Your task to perform on an android device: toggle priority inbox in the gmail app Image 0: 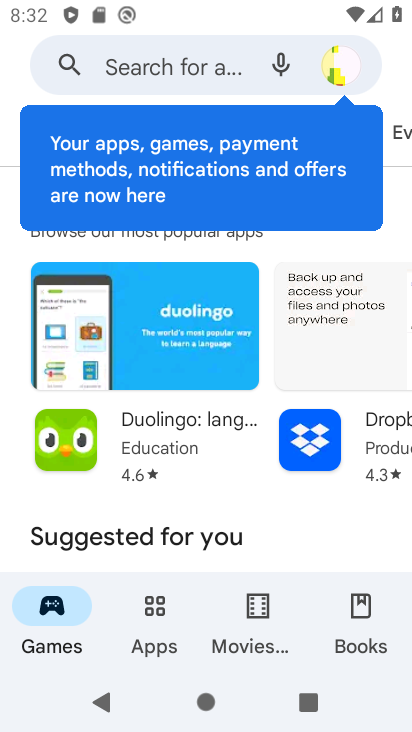
Step 0: press home button
Your task to perform on an android device: toggle priority inbox in the gmail app Image 1: 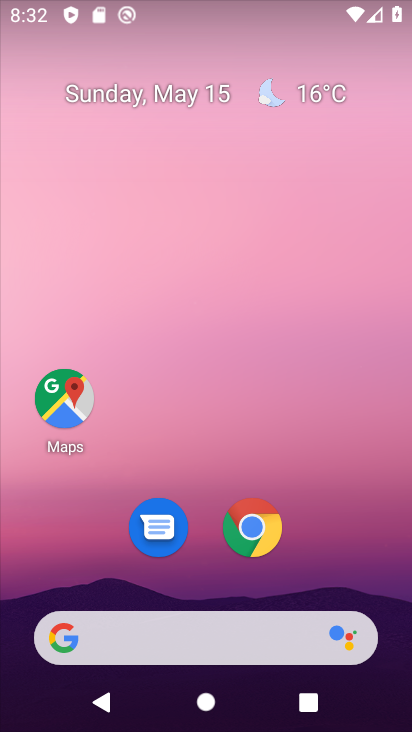
Step 1: drag from (361, 584) to (308, 9)
Your task to perform on an android device: toggle priority inbox in the gmail app Image 2: 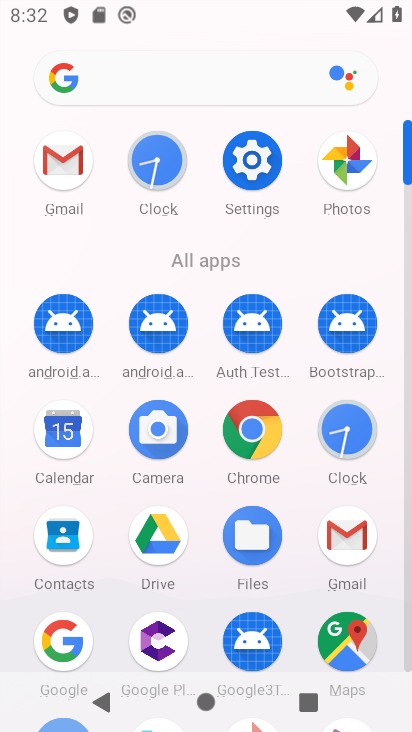
Step 2: click (65, 167)
Your task to perform on an android device: toggle priority inbox in the gmail app Image 3: 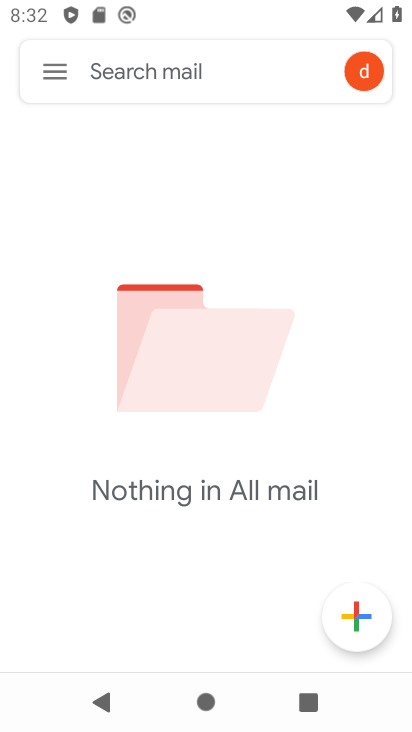
Step 3: click (47, 66)
Your task to perform on an android device: toggle priority inbox in the gmail app Image 4: 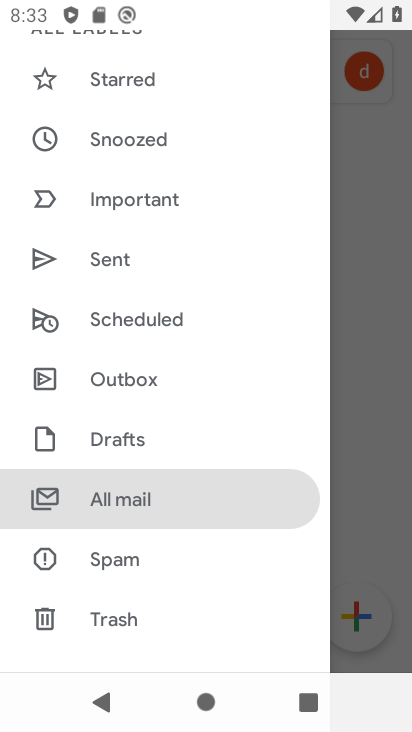
Step 4: drag from (243, 616) to (229, 85)
Your task to perform on an android device: toggle priority inbox in the gmail app Image 5: 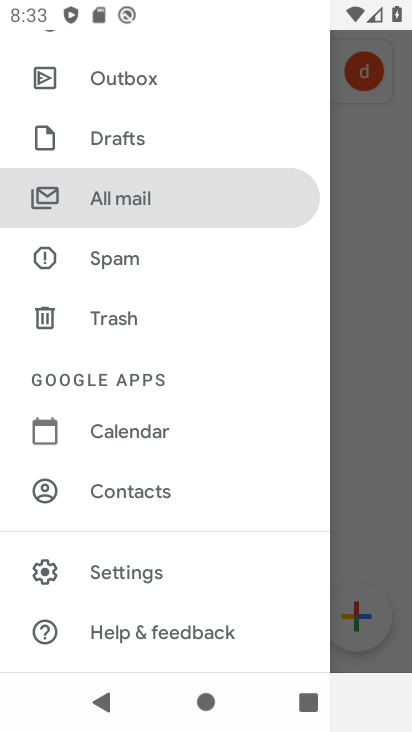
Step 5: click (103, 573)
Your task to perform on an android device: toggle priority inbox in the gmail app Image 6: 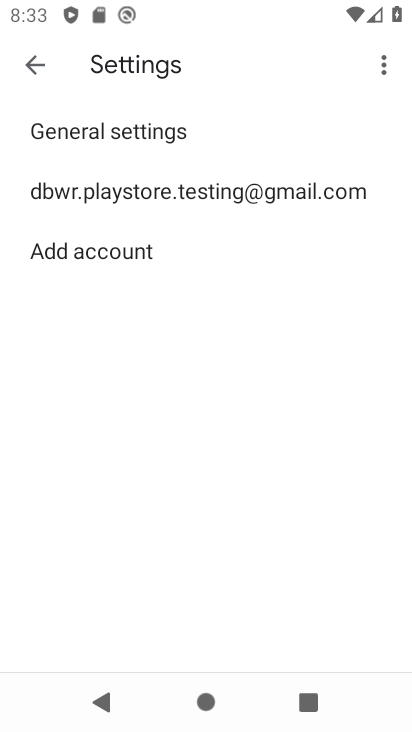
Step 6: click (101, 189)
Your task to perform on an android device: toggle priority inbox in the gmail app Image 7: 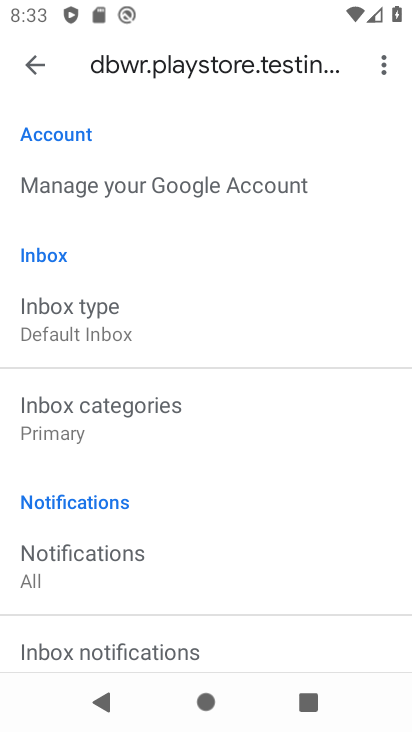
Step 7: drag from (206, 585) to (217, 359)
Your task to perform on an android device: toggle priority inbox in the gmail app Image 8: 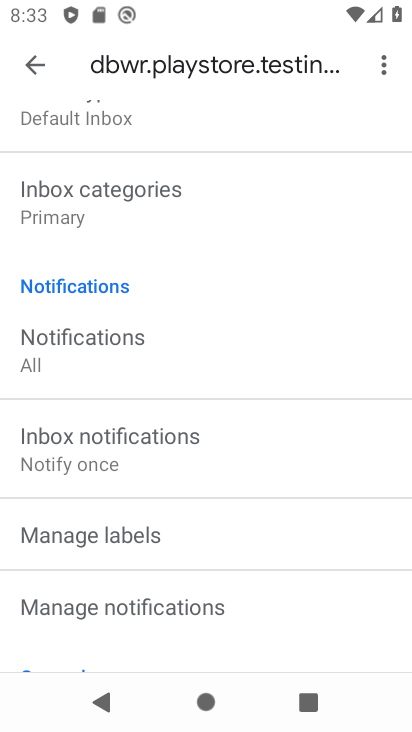
Step 8: drag from (269, 246) to (292, 492)
Your task to perform on an android device: toggle priority inbox in the gmail app Image 9: 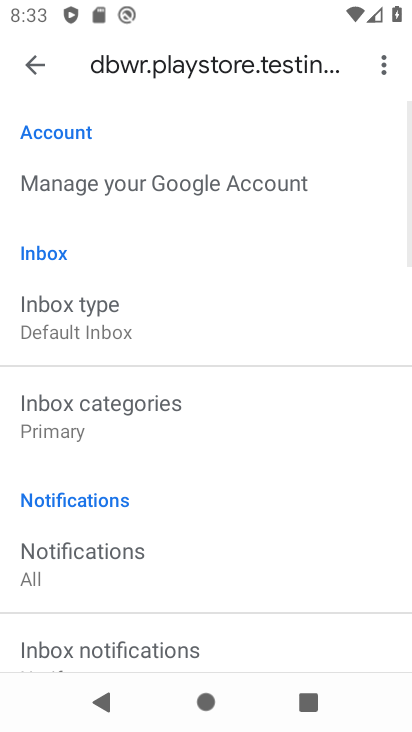
Step 9: click (55, 328)
Your task to perform on an android device: toggle priority inbox in the gmail app Image 10: 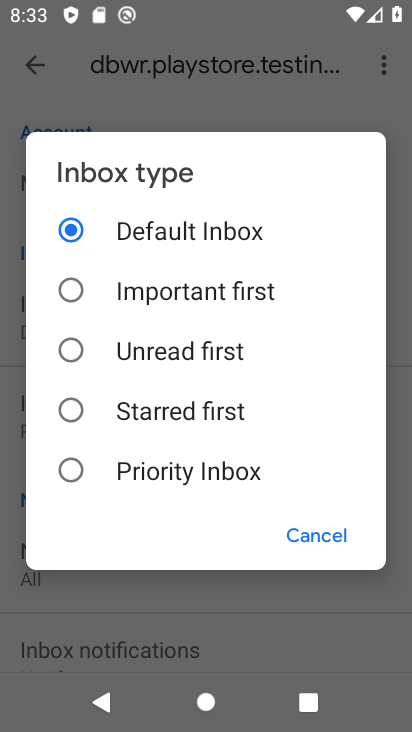
Step 10: click (75, 472)
Your task to perform on an android device: toggle priority inbox in the gmail app Image 11: 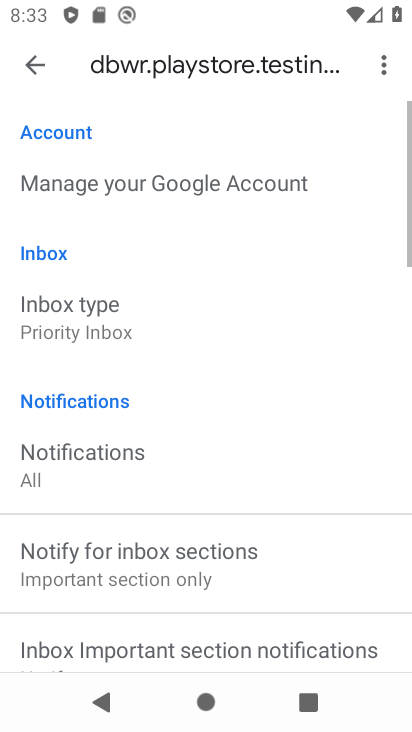
Step 11: task complete